Your task to perform on an android device: move a message to another label in the gmail app Image 0: 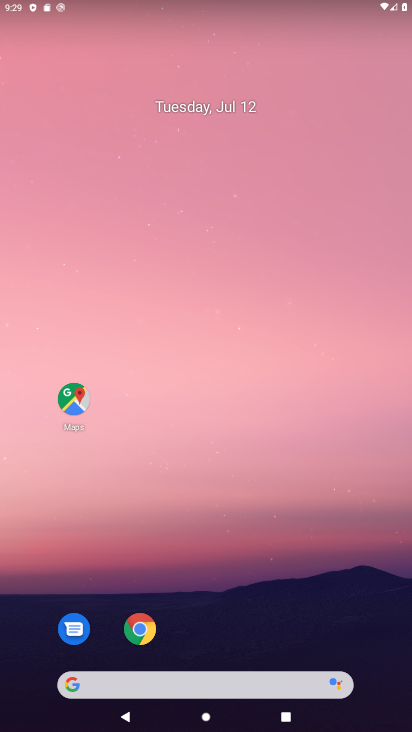
Step 0: drag from (248, 580) to (268, 97)
Your task to perform on an android device: move a message to another label in the gmail app Image 1: 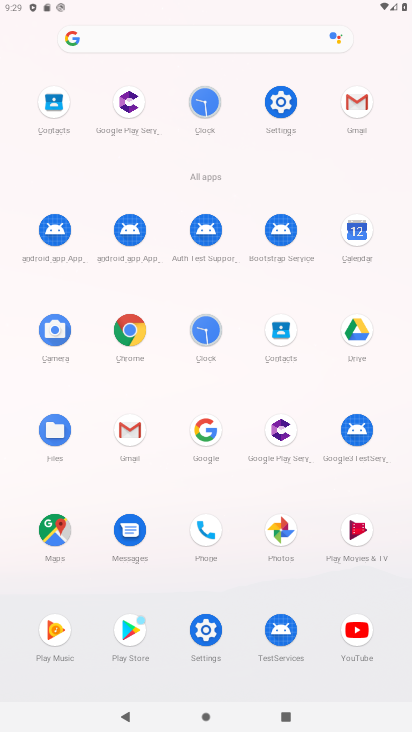
Step 1: click (365, 105)
Your task to perform on an android device: move a message to another label in the gmail app Image 2: 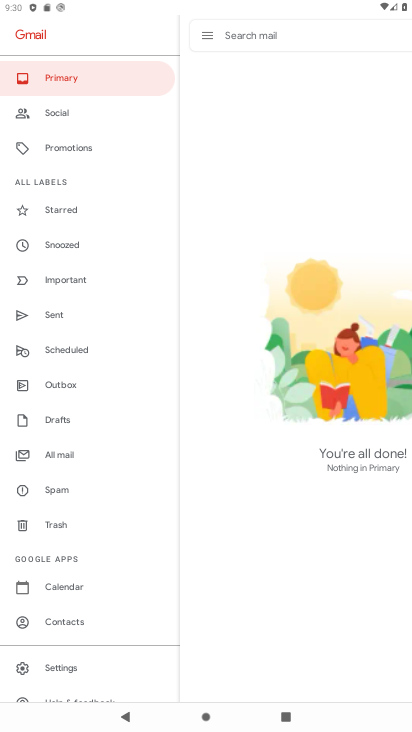
Step 2: click (75, 445)
Your task to perform on an android device: move a message to another label in the gmail app Image 3: 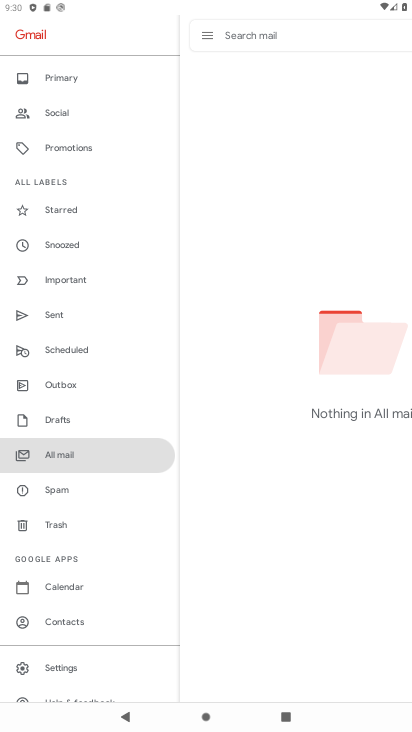
Step 3: task complete